Your task to perform on an android device: Go to battery settings Image 0: 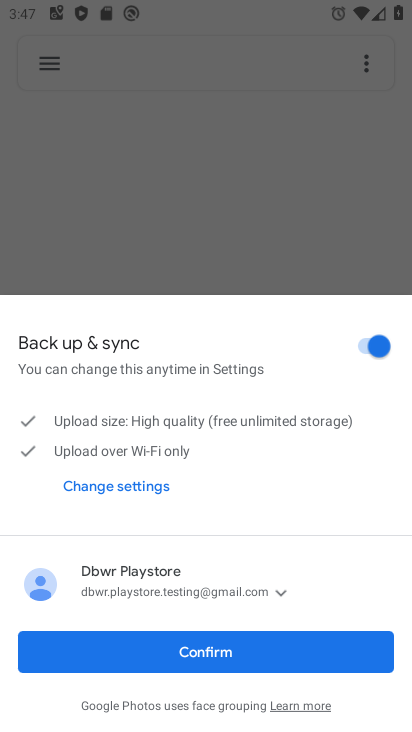
Step 0: press home button
Your task to perform on an android device: Go to battery settings Image 1: 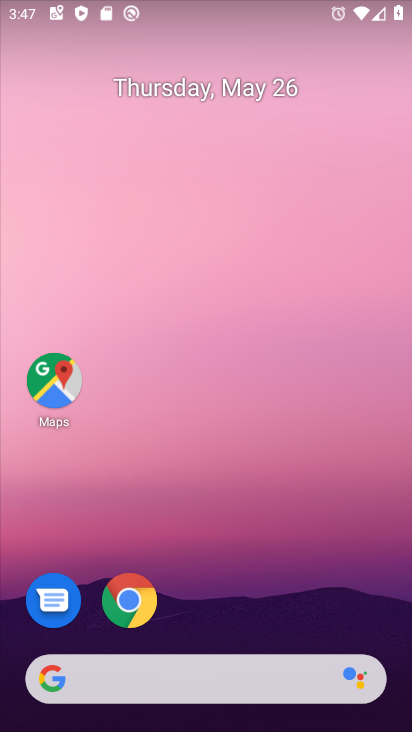
Step 1: drag from (210, 607) to (262, 60)
Your task to perform on an android device: Go to battery settings Image 2: 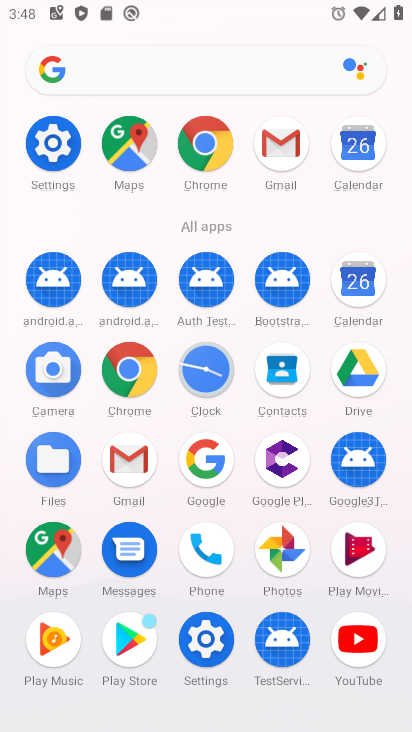
Step 2: click (51, 165)
Your task to perform on an android device: Go to battery settings Image 3: 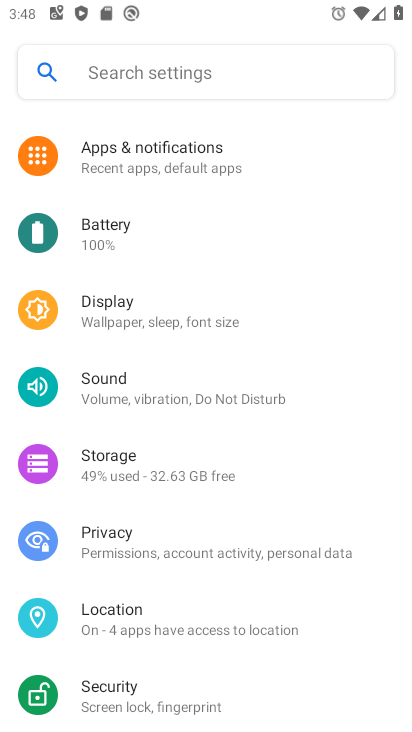
Step 3: click (163, 238)
Your task to perform on an android device: Go to battery settings Image 4: 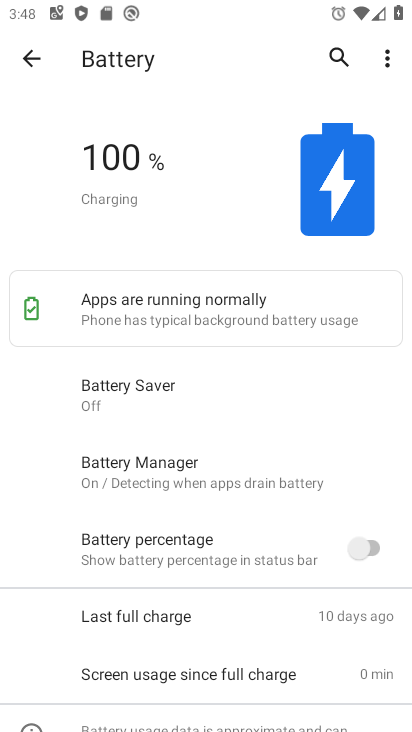
Step 4: task complete